Your task to perform on an android device: Open Google Chrome Image 0: 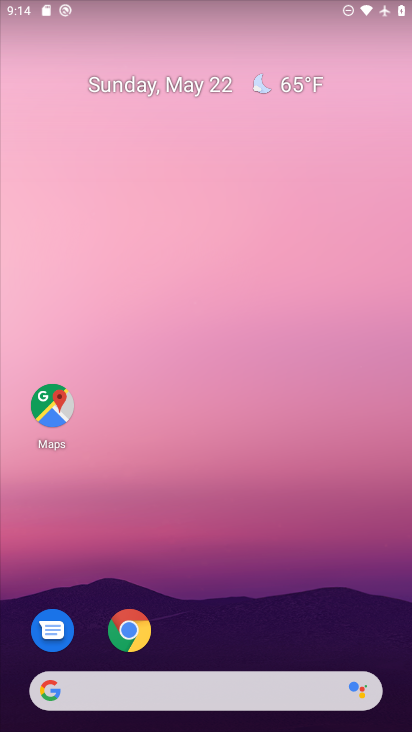
Step 0: press home button
Your task to perform on an android device: Open Google Chrome Image 1: 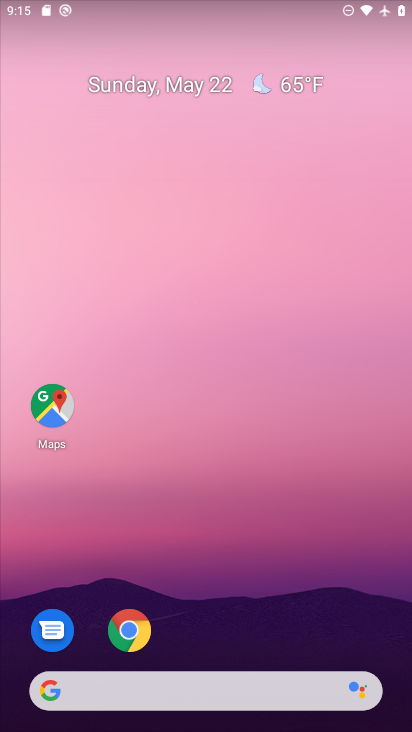
Step 1: click (143, 631)
Your task to perform on an android device: Open Google Chrome Image 2: 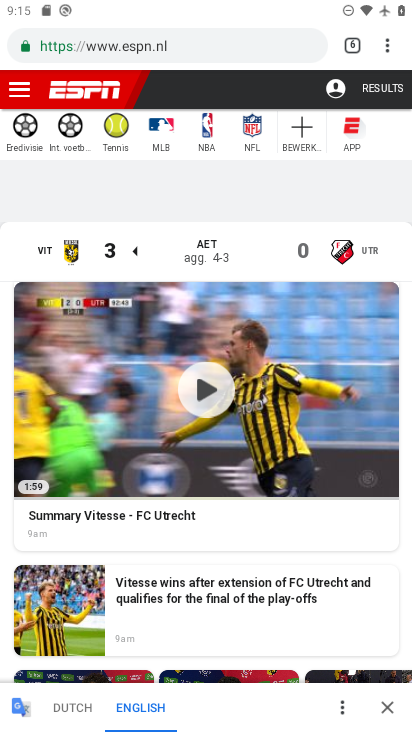
Step 2: task complete